Your task to perform on an android device: What is the news today? Image 0: 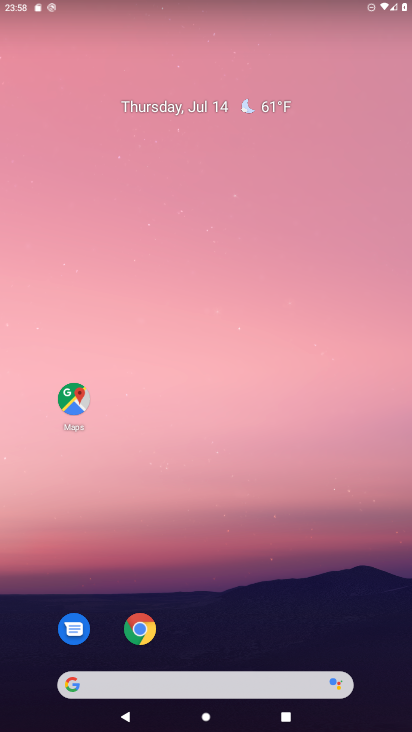
Step 0: click (125, 686)
Your task to perform on an android device: What is the news today? Image 1: 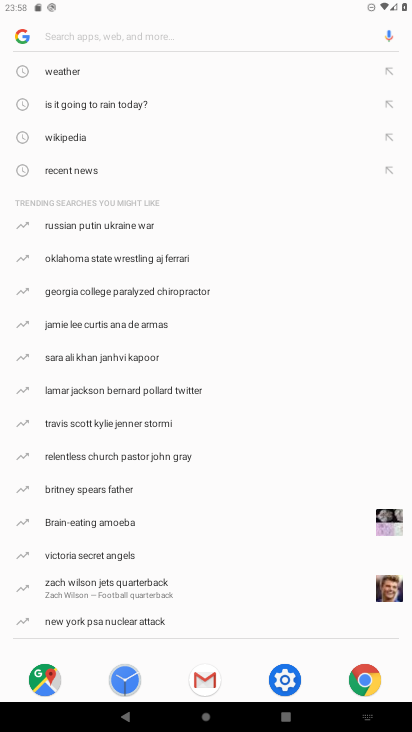
Step 1: click (28, 40)
Your task to perform on an android device: What is the news today? Image 2: 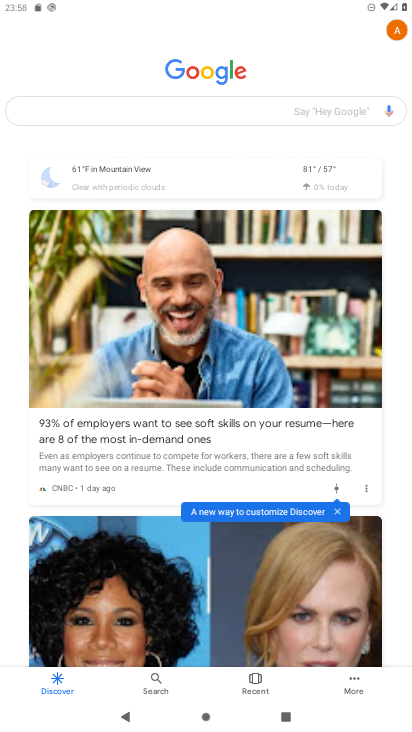
Step 2: task complete